Your task to perform on an android device: Go to privacy settings Image 0: 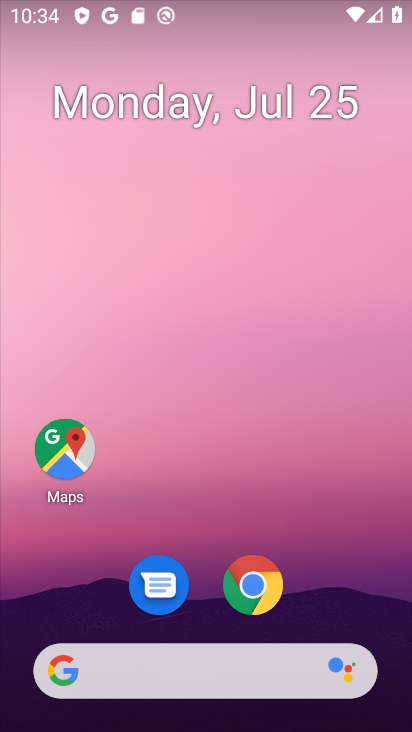
Step 0: drag from (318, 586) to (324, 86)
Your task to perform on an android device: Go to privacy settings Image 1: 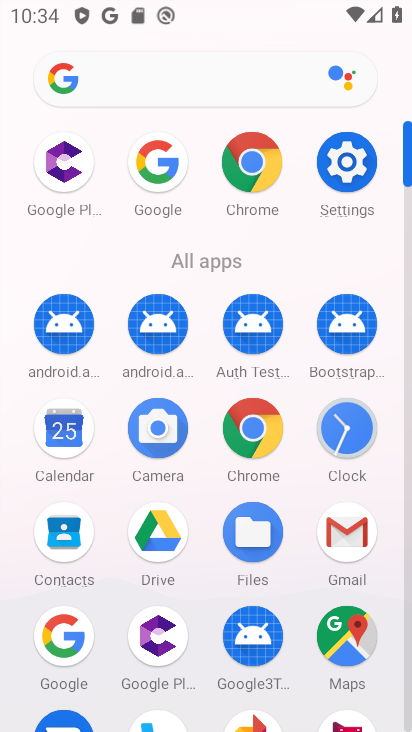
Step 1: click (355, 165)
Your task to perform on an android device: Go to privacy settings Image 2: 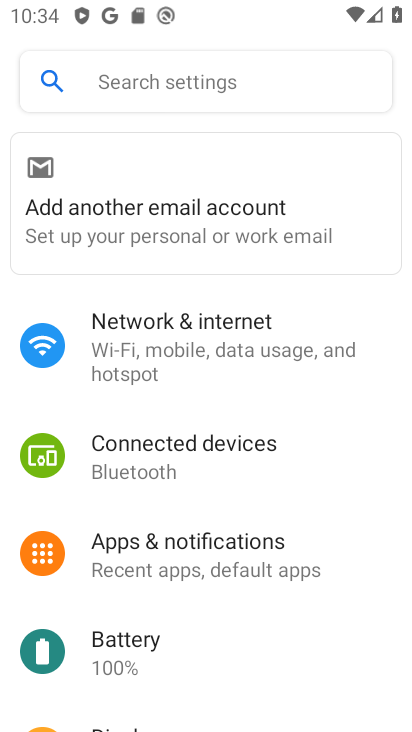
Step 2: drag from (179, 582) to (245, 3)
Your task to perform on an android device: Go to privacy settings Image 3: 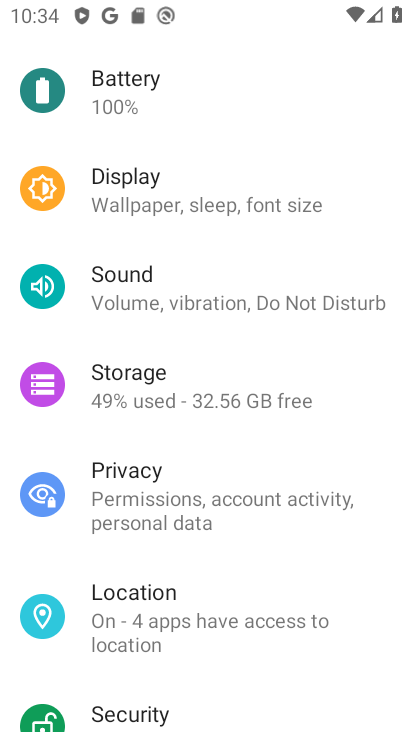
Step 3: click (195, 492)
Your task to perform on an android device: Go to privacy settings Image 4: 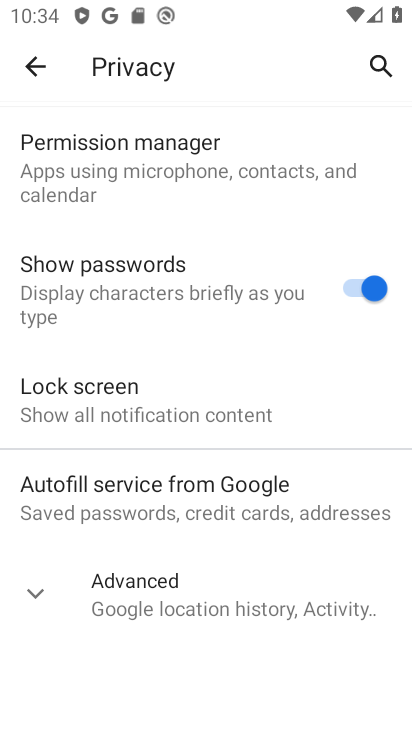
Step 4: click (38, 587)
Your task to perform on an android device: Go to privacy settings Image 5: 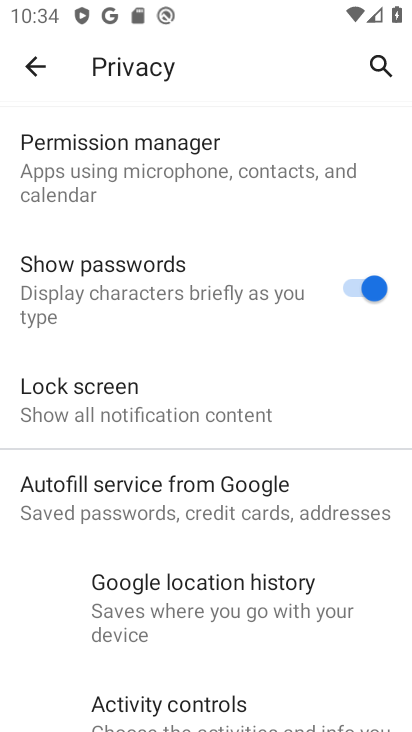
Step 5: task complete